Your task to perform on an android device: open a bookmark in the chrome app Image 0: 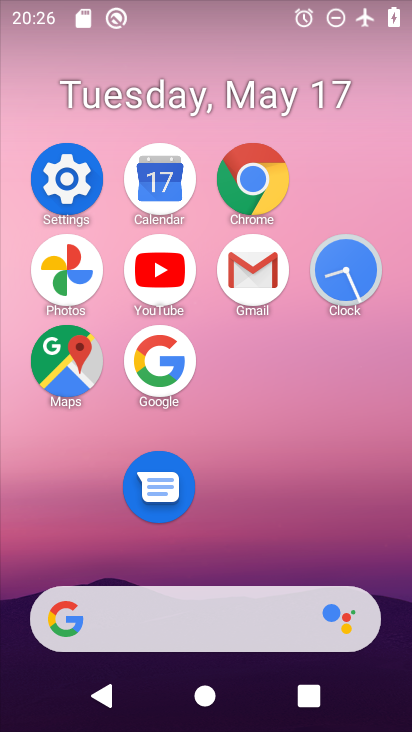
Step 0: click (241, 184)
Your task to perform on an android device: open a bookmark in the chrome app Image 1: 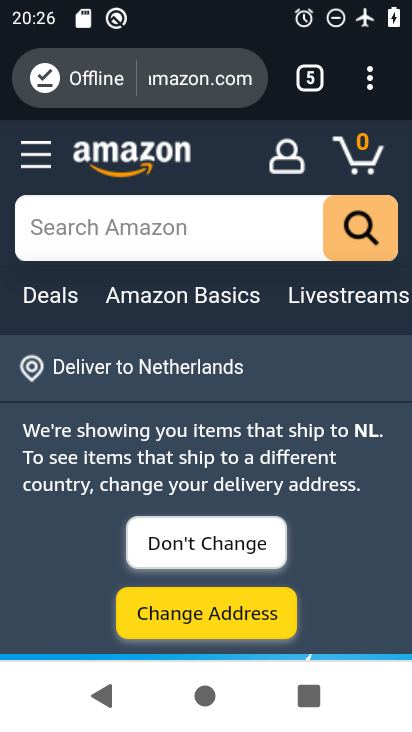
Step 1: click (377, 81)
Your task to perform on an android device: open a bookmark in the chrome app Image 2: 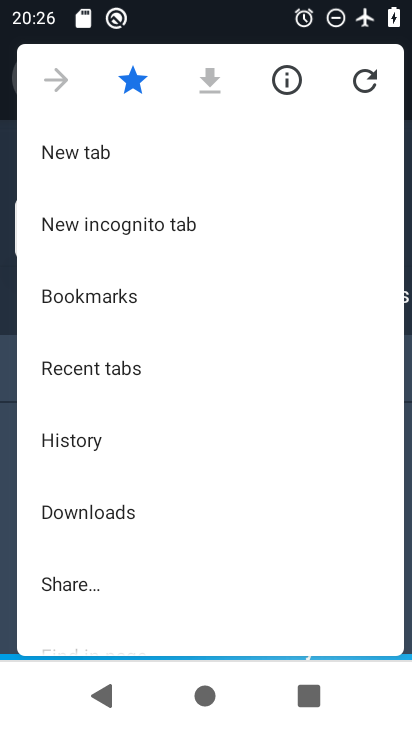
Step 2: click (126, 298)
Your task to perform on an android device: open a bookmark in the chrome app Image 3: 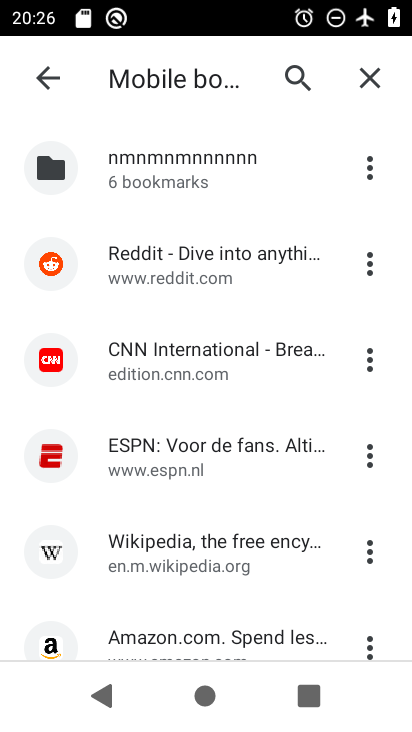
Step 3: task complete